Your task to perform on an android device: add a contact Image 0: 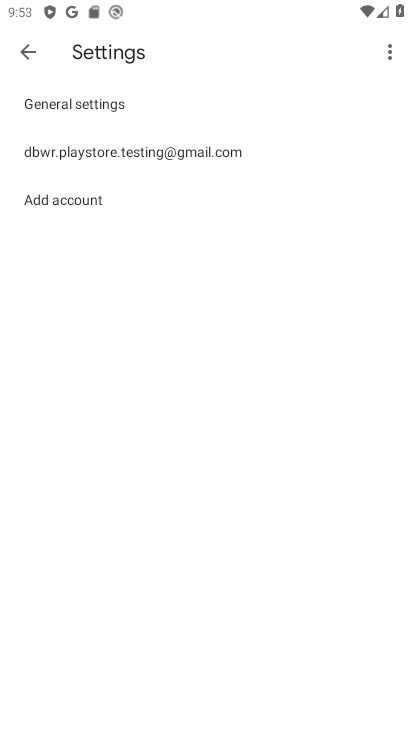
Step 0: press home button
Your task to perform on an android device: add a contact Image 1: 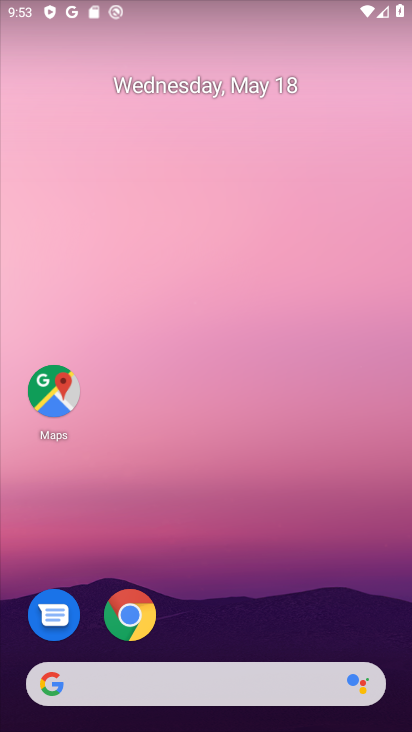
Step 1: drag from (286, 576) to (295, 424)
Your task to perform on an android device: add a contact Image 2: 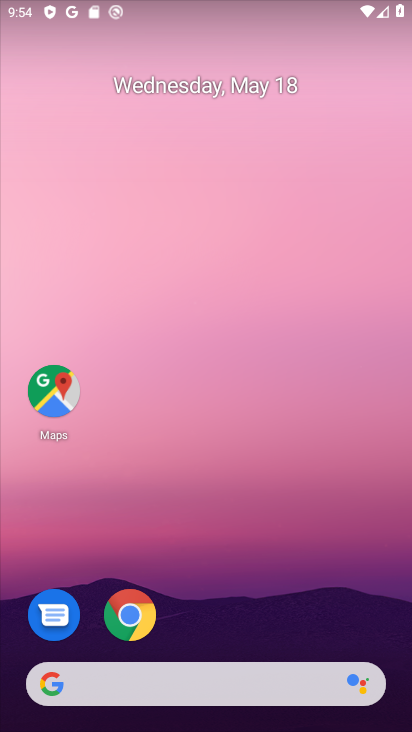
Step 2: drag from (252, 631) to (244, 33)
Your task to perform on an android device: add a contact Image 3: 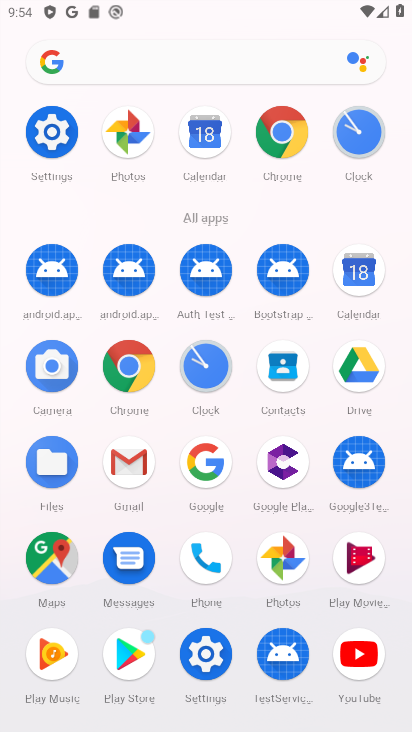
Step 3: click (287, 357)
Your task to perform on an android device: add a contact Image 4: 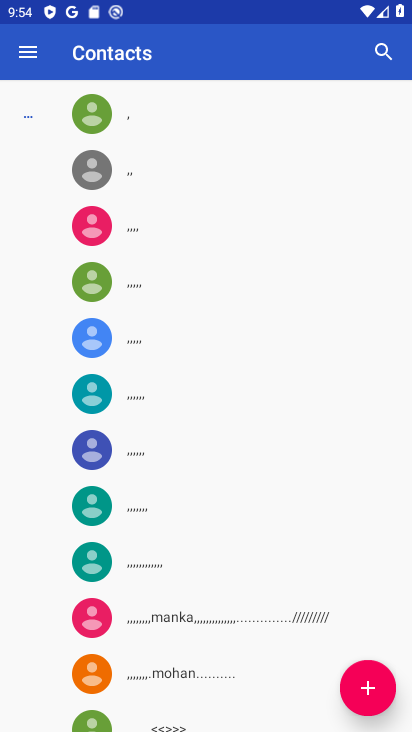
Step 4: click (376, 677)
Your task to perform on an android device: add a contact Image 5: 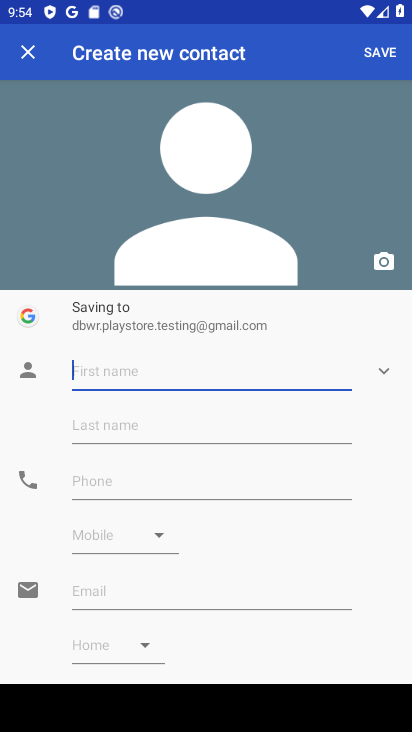
Step 5: type "opo"
Your task to perform on an android device: add a contact Image 6: 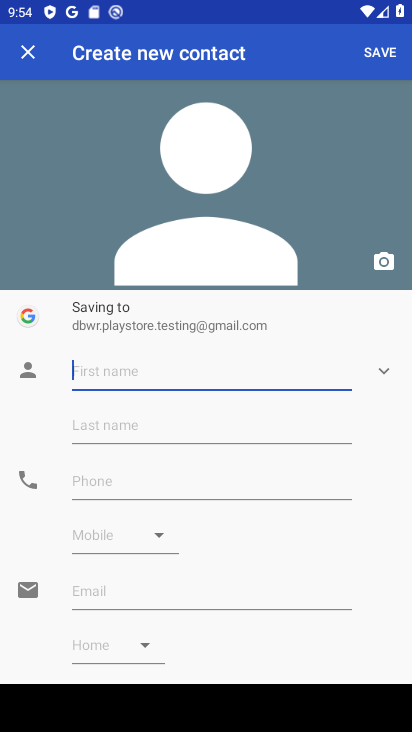
Step 6: click (116, 480)
Your task to perform on an android device: add a contact Image 7: 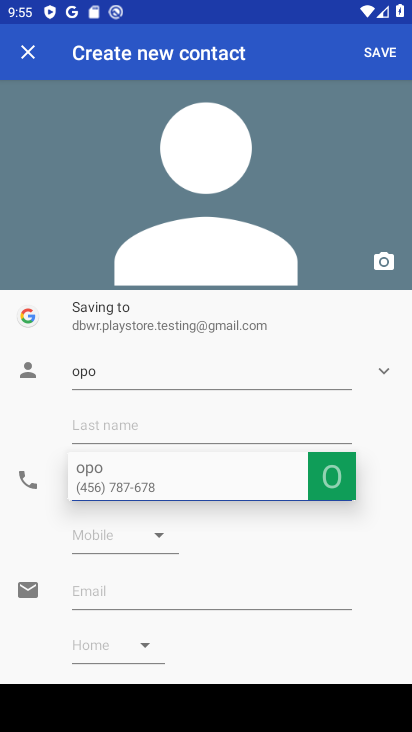
Step 7: type "7473334444"
Your task to perform on an android device: add a contact Image 8: 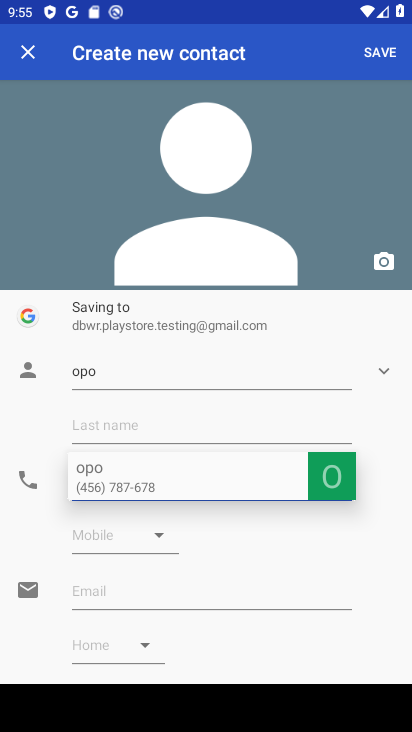
Step 8: click (383, 49)
Your task to perform on an android device: add a contact Image 9: 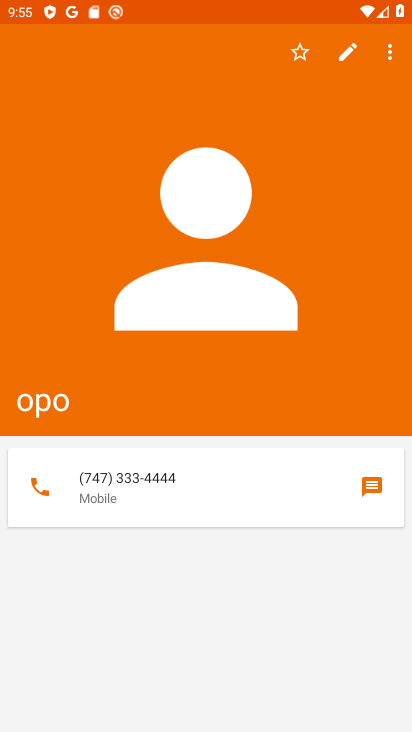
Step 9: task complete